Your task to perform on an android device: Open Youtube and go to "Your channel" Image 0: 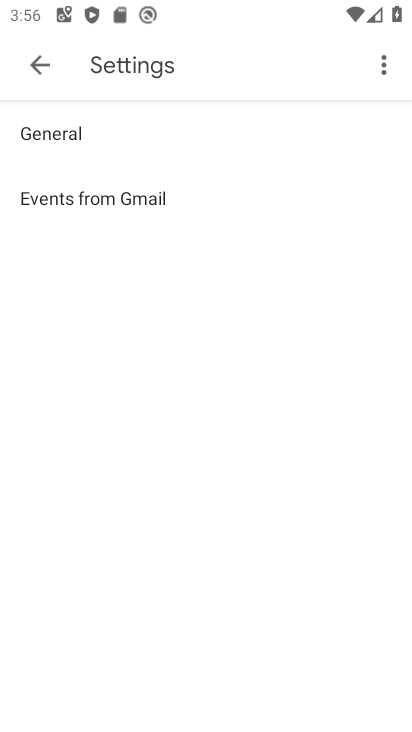
Step 0: press home button
Your task to perform on an android device: Open Youtube and go to "Your channel" Image 1: 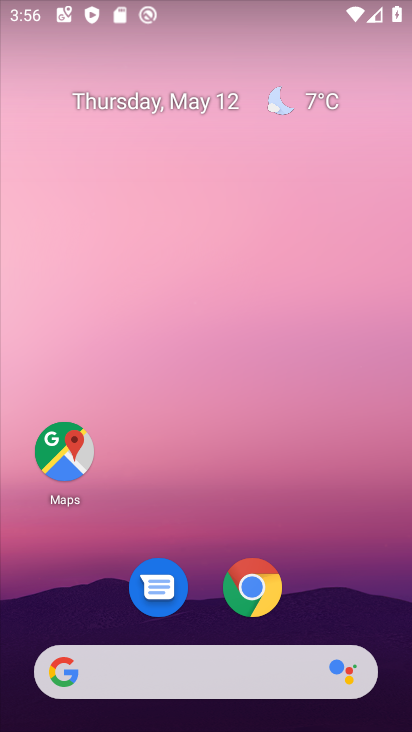
Step 1: drag from (321, 588) to (263, 190)
Your task to perform on an android device: Open Youtube and go to "Your channel" Image 2: 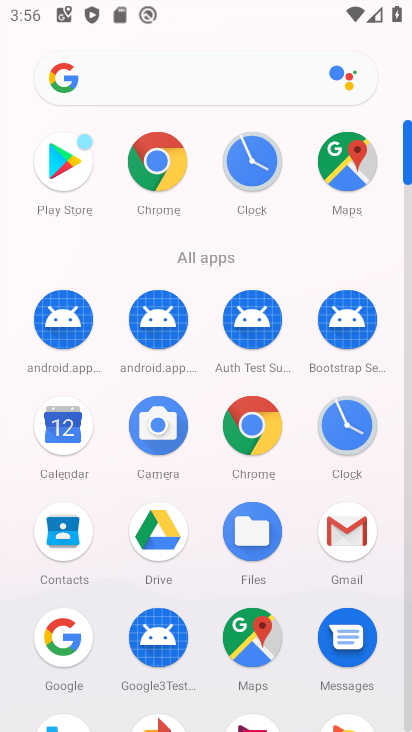
Step 2: drag from (214, 608) to (210, 300)
Your task to perform on an android device: Open Youtube and go to "Your channel" Image 3: 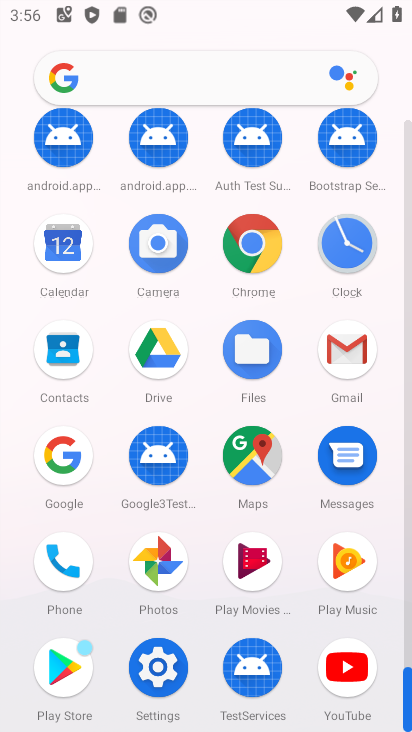
Step 3: click (361, 679)
Your task to perform on an android device: Open Youtube and go to "Your channel" Image 4: 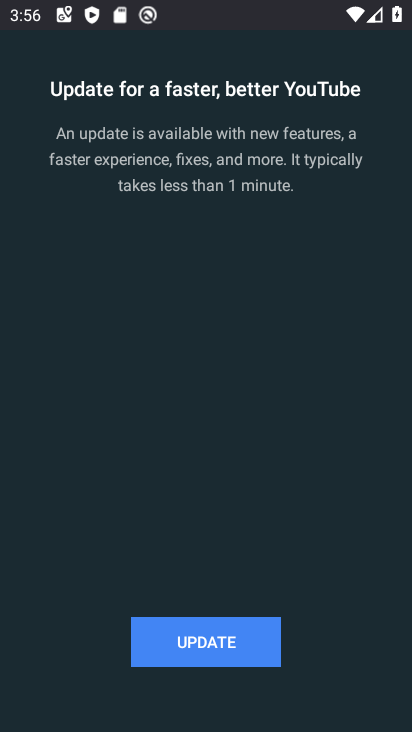
Step 4: click (225, 660)
Your task to perform on an android device: Open Youtube and go to "Your channel" Image 5: 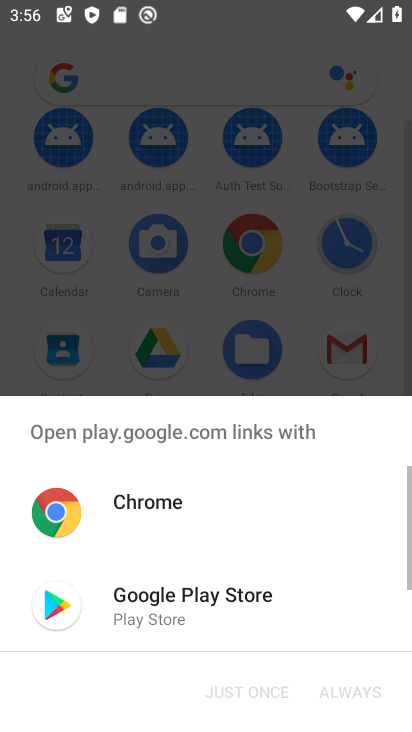
Step 5: drag from (169, 603) to (246, 585)
Your task to perform on an android device: Open Youtube and go to "Your channel" Image 6: 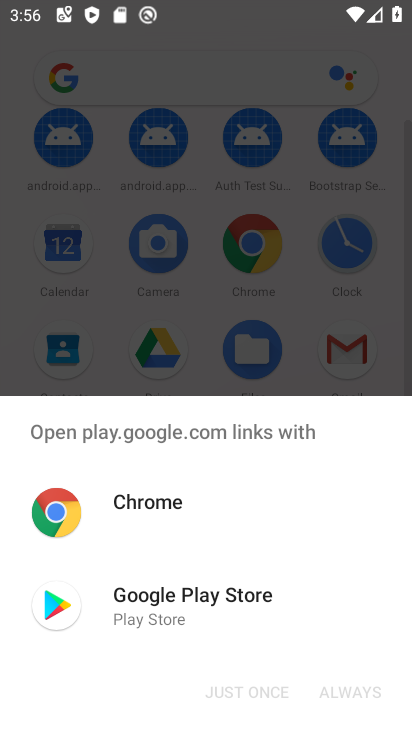
Step 6: click (193, 617)
Your task to perform on an android device: Open Youtube and go to "Your channel" Image 7: 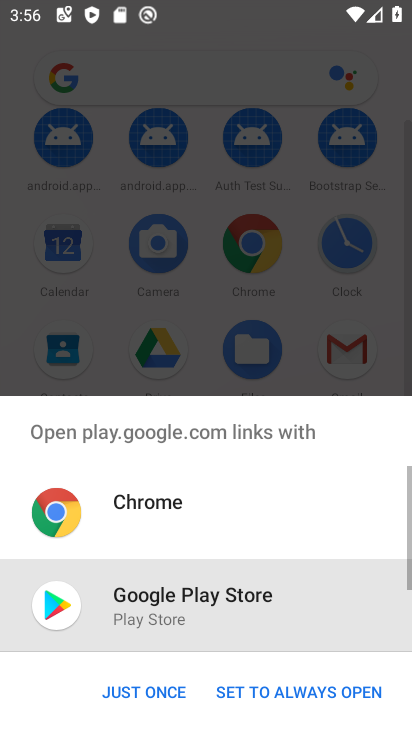
Step 7: click (164, 688)
Your task to perform on an android device: Open Youtube and go to "Your channel" Image 8: 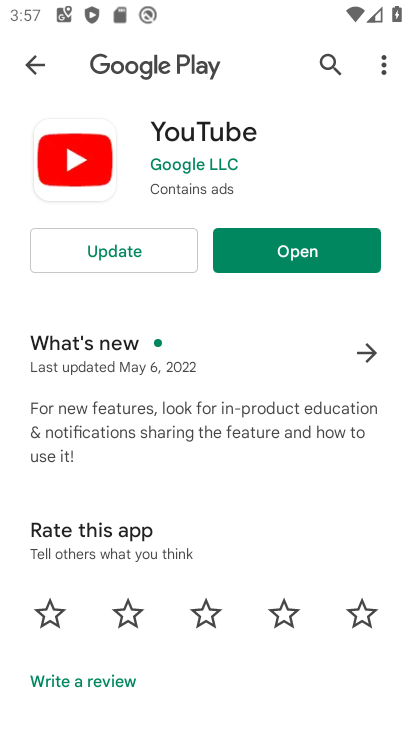
Step 8: click (156, 253)
Your task to perform on an android device: Open Youtube and go to "Your channel" Image 9: 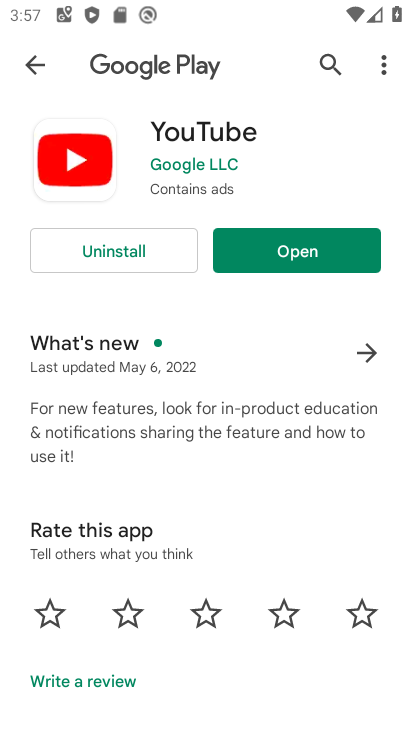
Step 9: click (308, 236)
Your task to perform on an android device: Open Youtube and go to "Your channel" Image 10: 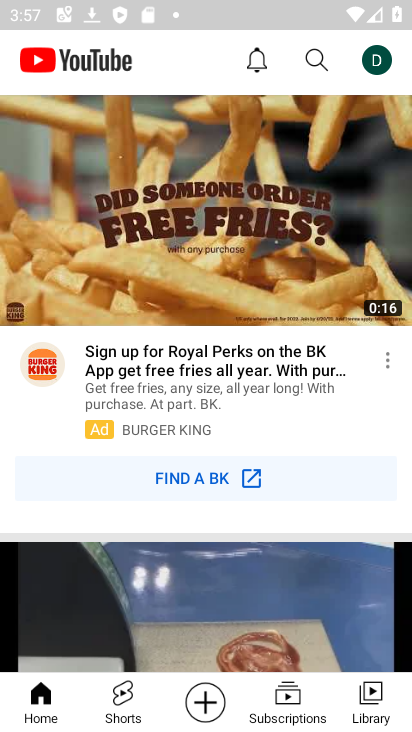
Step 10: click (379, 60)
Your task to perform on an android device: Open Youtube and go to "Your channel" Image 11: 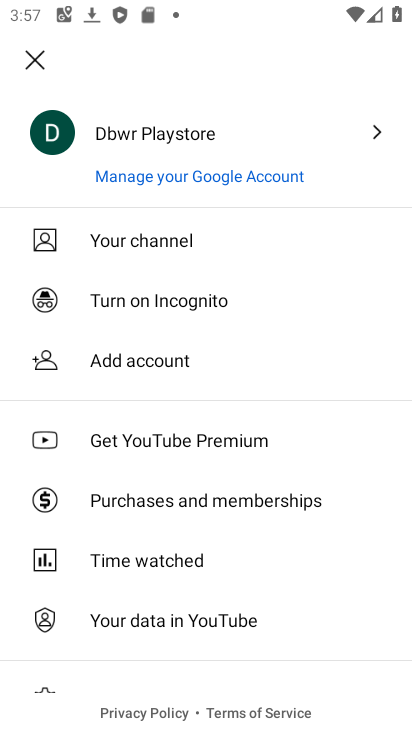
Step 11: click (193, 247)
Your task to perform on an android device: Open Youtube and go to "Your channel" Image 12: 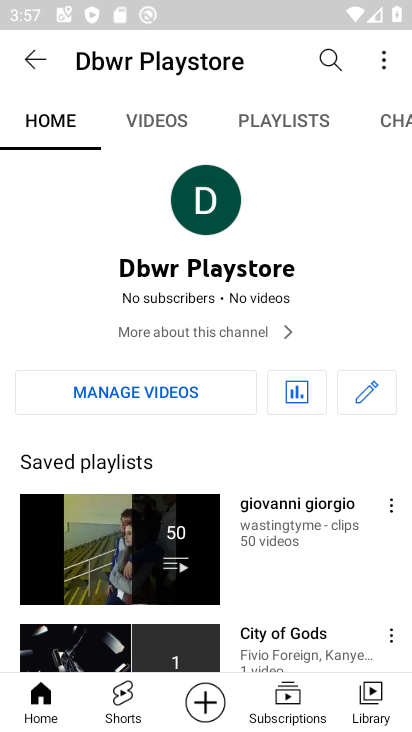
Step 12: task complete